Your task to perform on an android device: Go to Amazon Image 0: 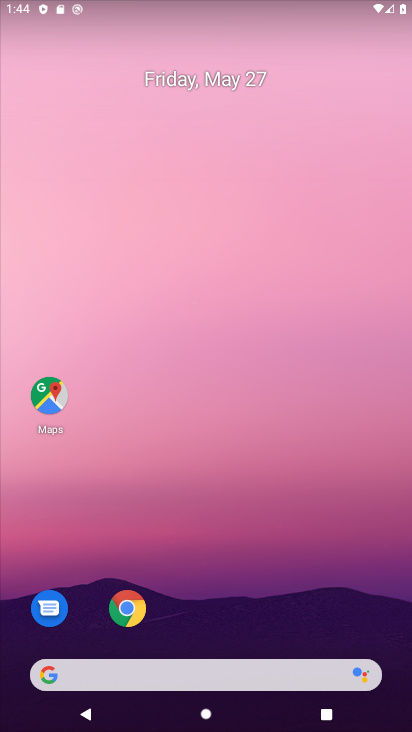
Step 0: click (218, 675)
Your task to perform on an android device: Go to Amazon Image 1: 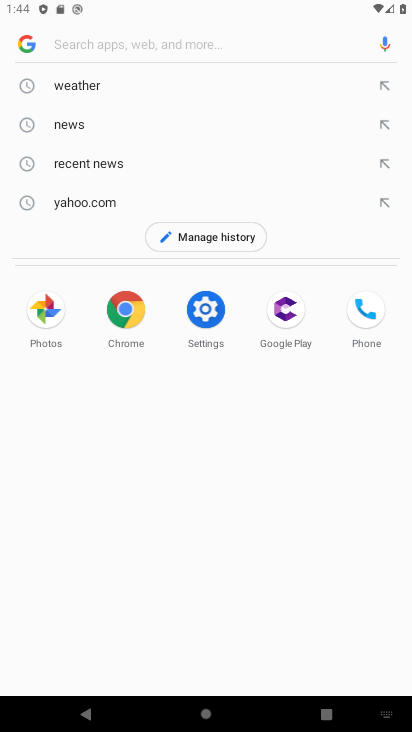
Step 1: type "Amazon"
Your task to perform on an android device: Go to Amazon Image 2: 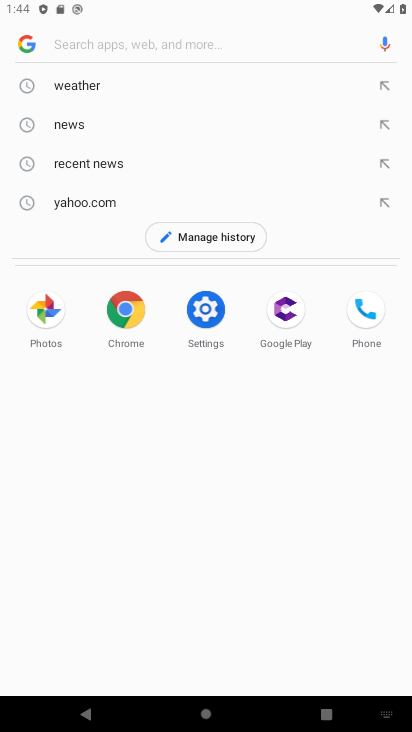
Step 2: click (111, 48)
Your task to perform on an android device: Go to Amazon Image 3: 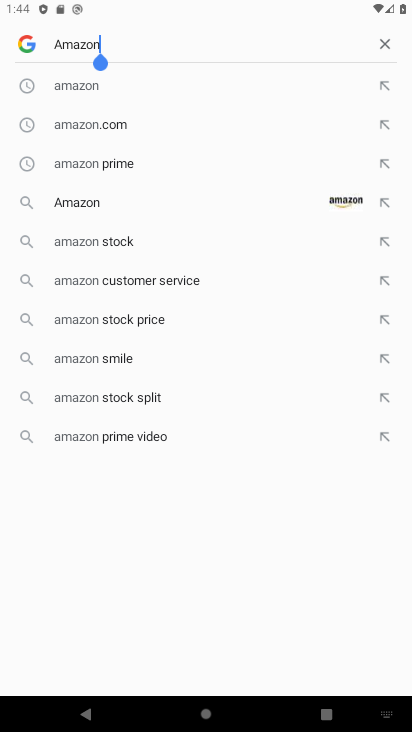
Step 3: click (64, 202)
Your task to perform on an android device: Go to Amazon Image 4: 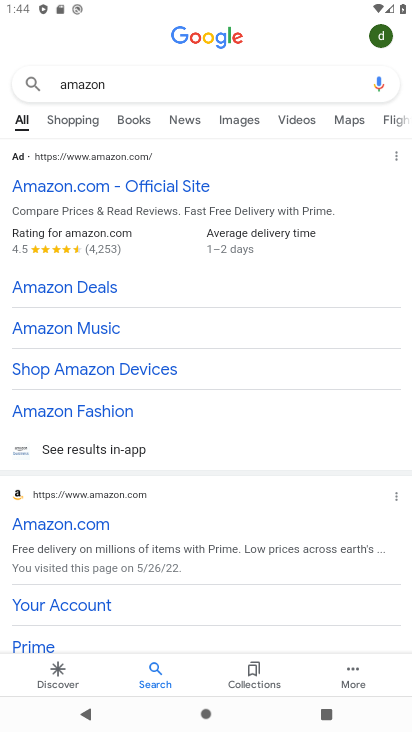
Step 4: click (63, 522)
Your task to perform on an android device: Go to Amazon Image 5: 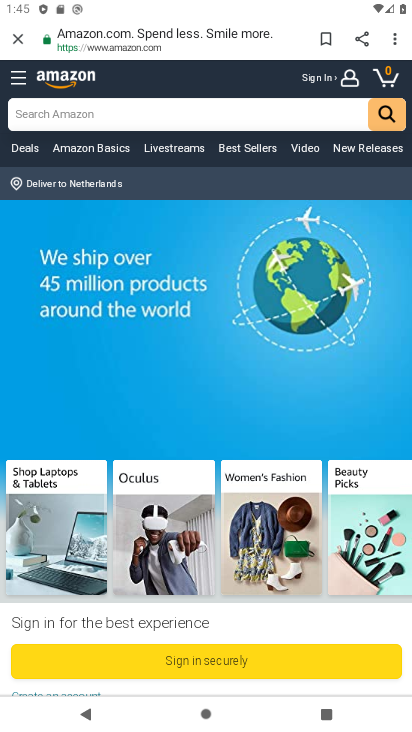
Step 5: task complete